Your task to perform on an android device: Open settings on Google Maps Image 0: 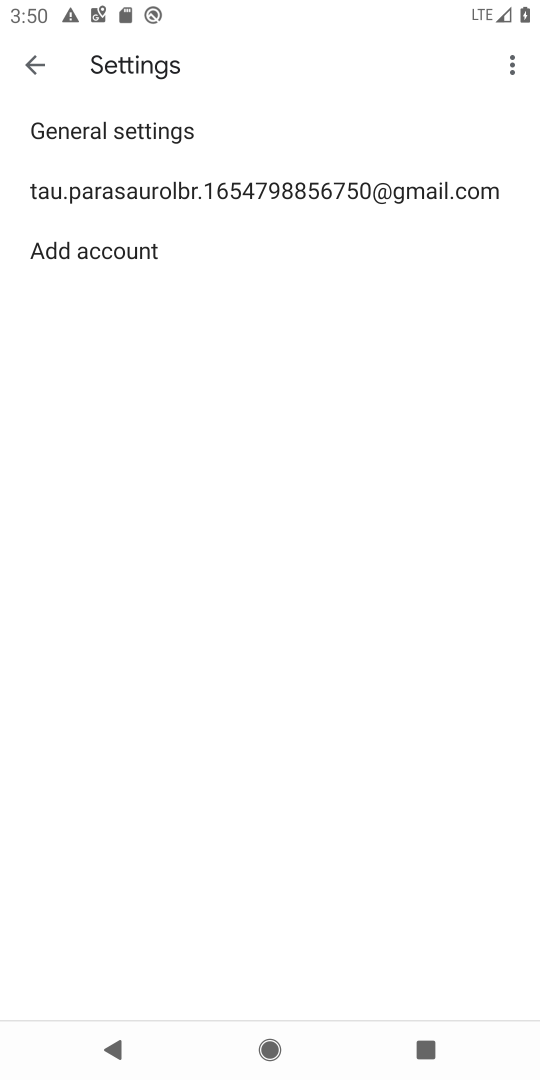
Step 0: press back button
Your task to perform on an android device: Open settings on Google Maps Image 1: 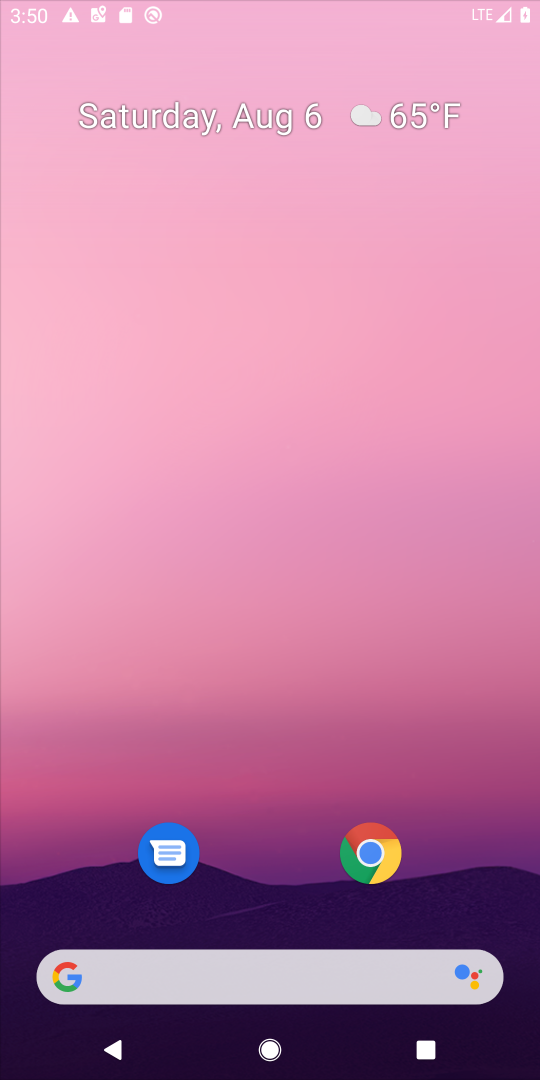
Step 1: press back button
Your task to perform on an android device: Open settings on Google Maps Image 2: 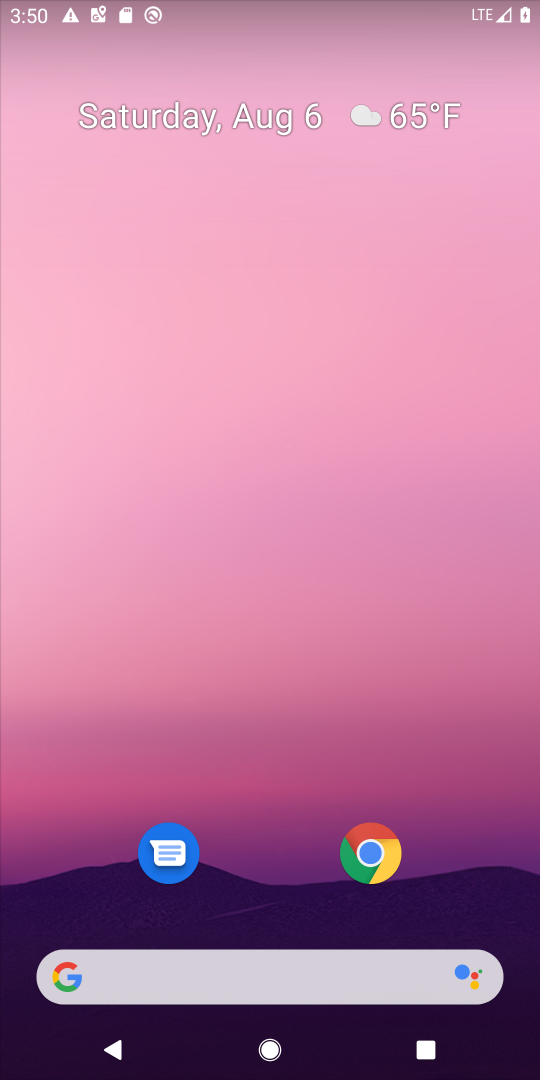
Step 2: drag from (271, 923) to (248, 0)
Your task to perform on an android device: Open settings on Google Maps Image 3: 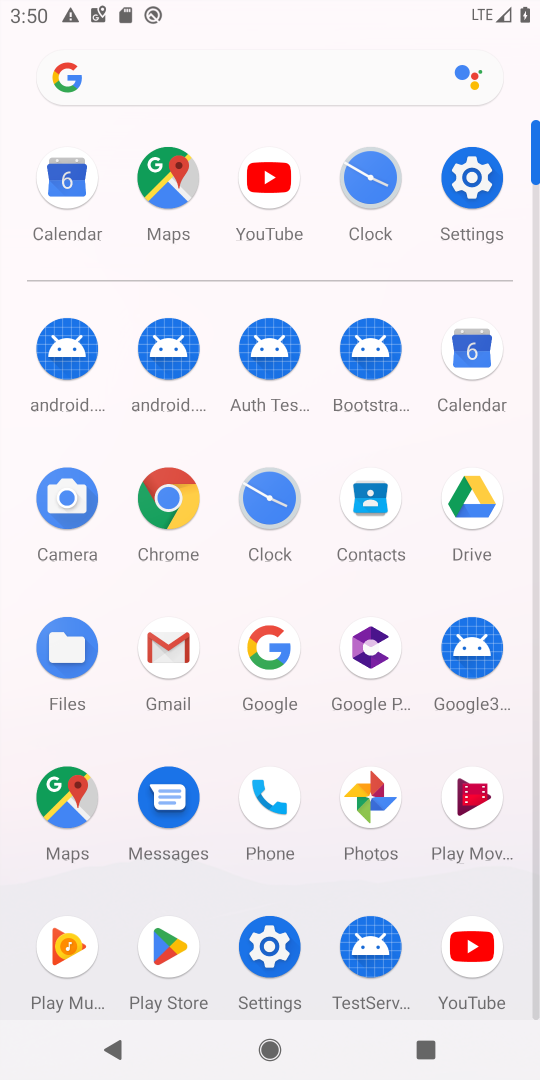
Step 3: click (167, 165)
Your task to perform on an android device: Open settings on Google Maps Image 4: 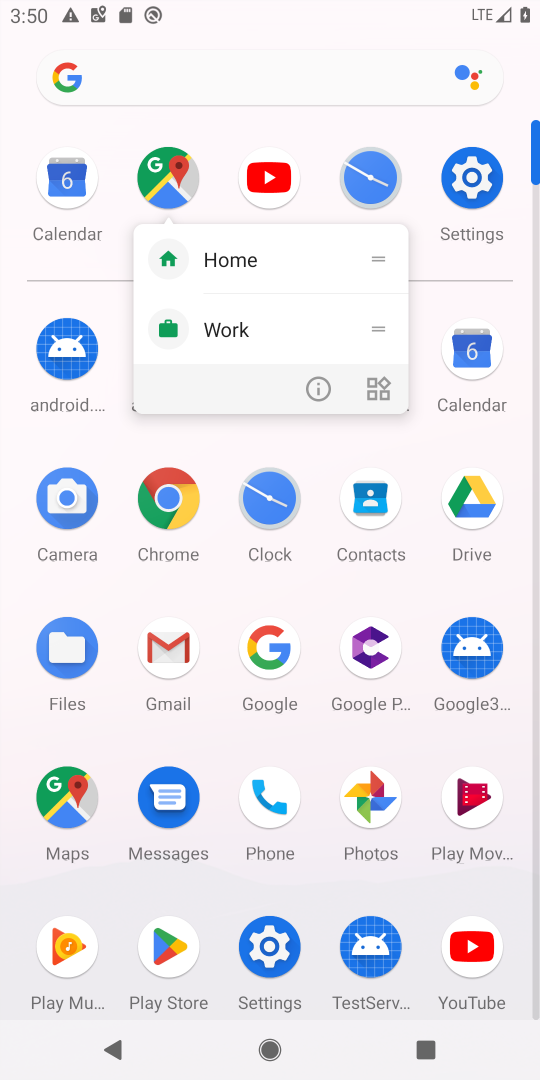
Step 4: click (167, 182)
Your task to perform on an android device: Open settings on Google Maps Image 5: 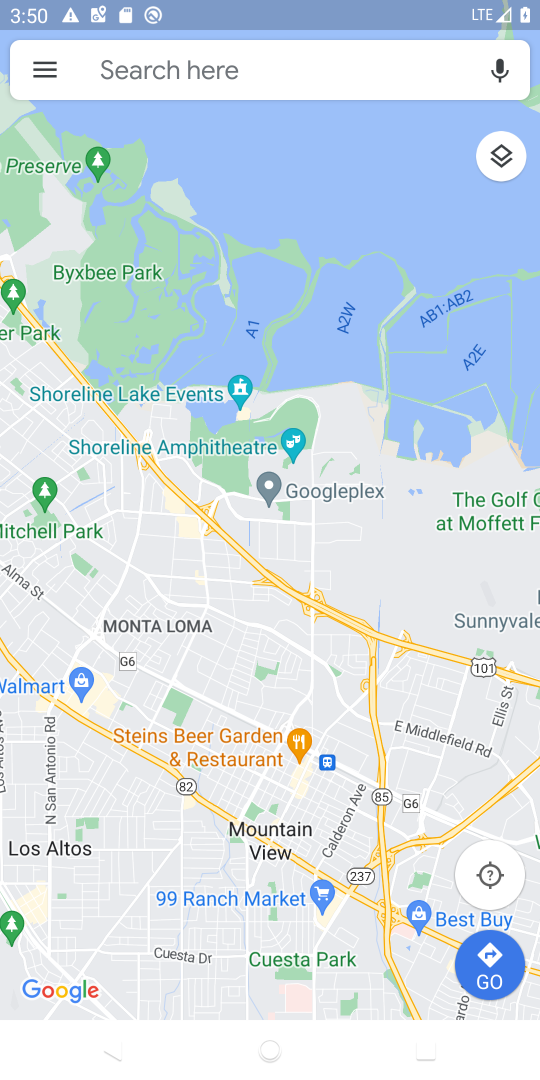
Step 5: click (36, 52)
Your task to perform on an android device: Open settings on Google Maps Image 6: 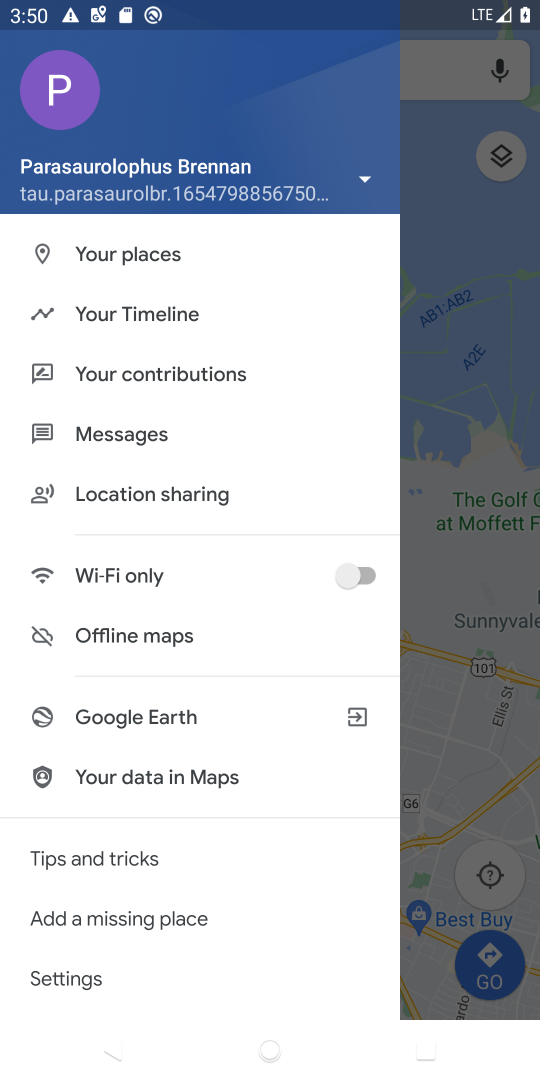
Step 6: drag from (158, 949) to (228, 189)
Your task to perform on an android device: Open settings on Google Maps Image 7: 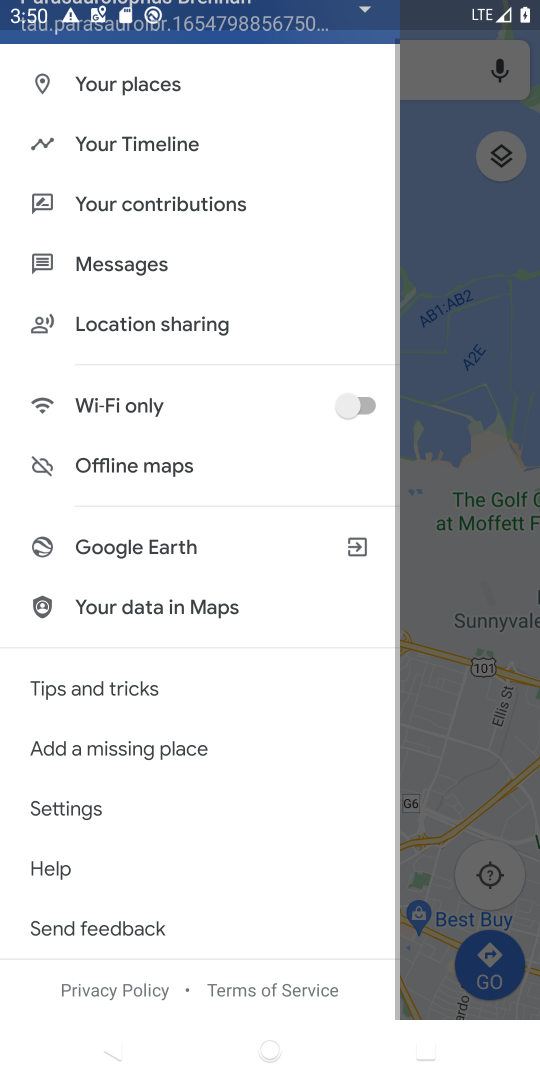
Step 7: click (97, 808)
Your task to perform on an android device: Open settings on Google Maps Image 8: 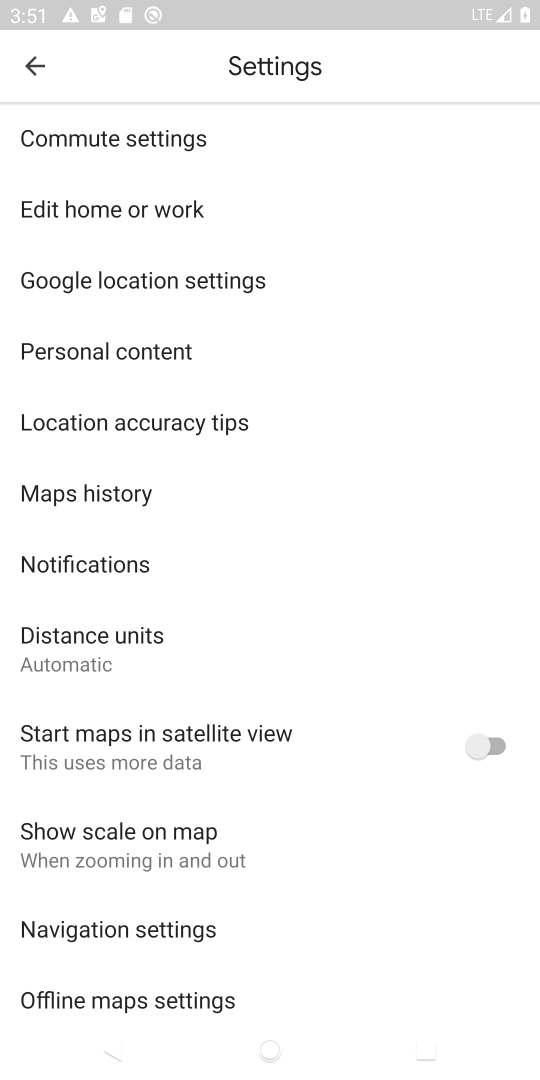
Step 8: task complete